Your task to perform on an android device: Search for seafood restaurants on Google Maps Image 0: 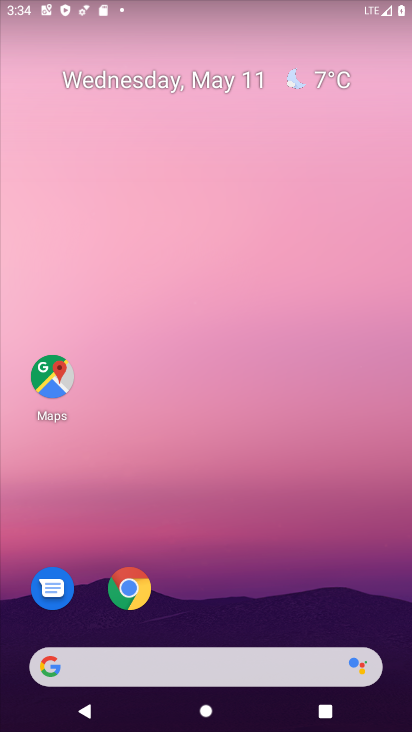
Step 0: drag from (220, 706) to (192, 86)
Your task to perform on an android device: Search for seafood restaurants on Google Maps Image 1: 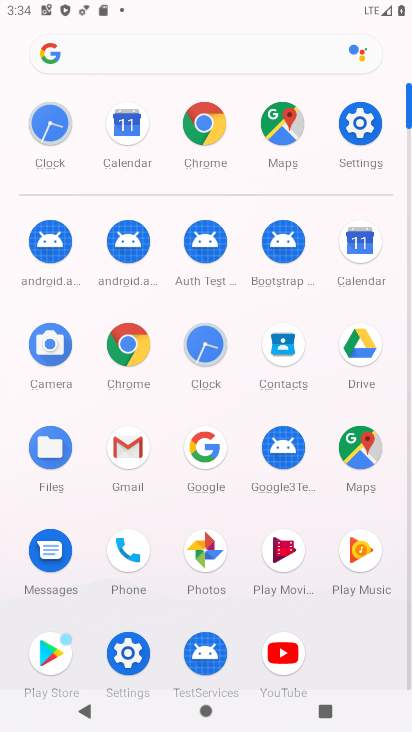
Step 1: click (363, 451)
Your task to perform on an android device: Search for seafood restaurants on Google Maps Image 2: 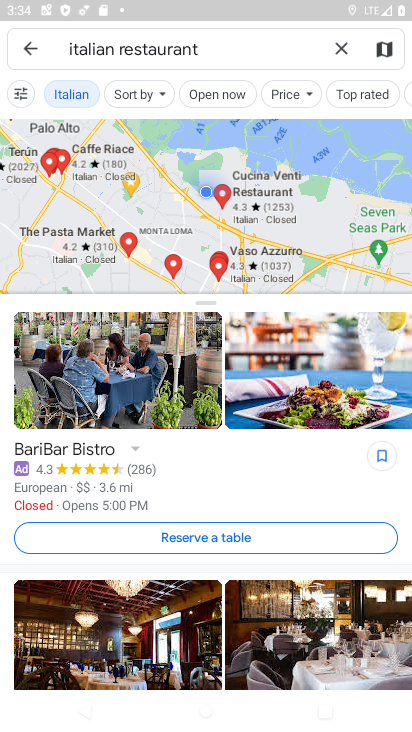
Step 2: click (342, 42)
Your task to perform on an android device: Search for seafood restaurants on Google Maps Image 3: 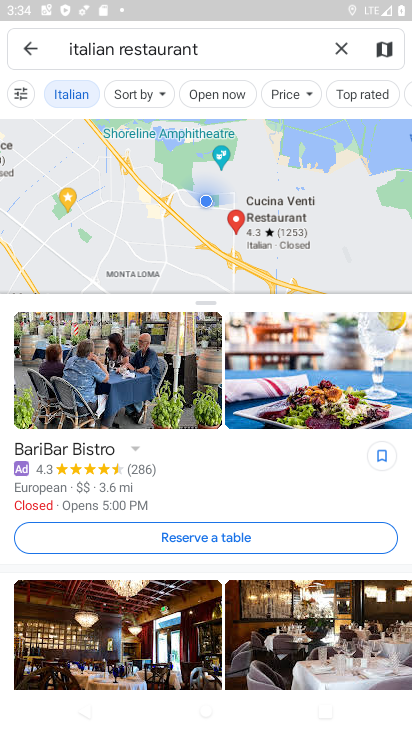
Step 3: click (187, 44)
Your task to perform on an android device: Search for seafood restaurants on Google Maps Image 4: 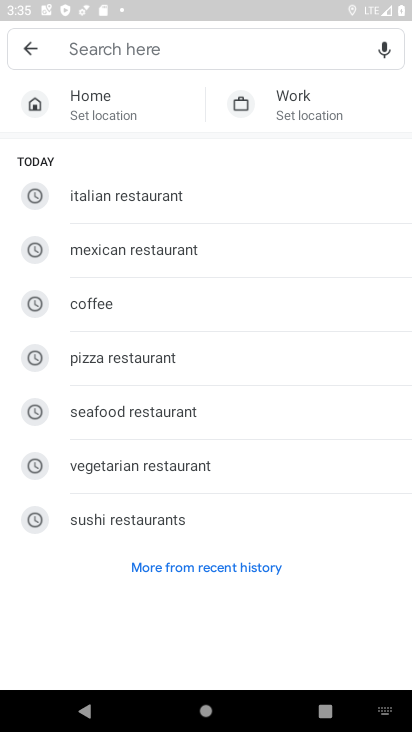
Step 4: type "seafood restaurants"
Your task to perform on an android device: Search for seafood restaurants on Google Maps Image 5: 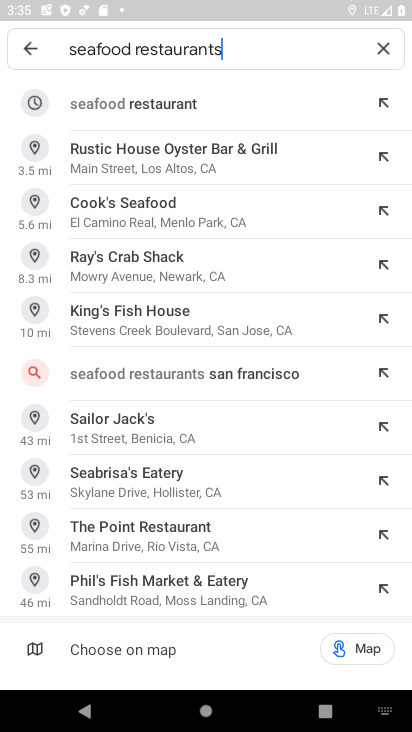
Step 5: click (122, 103)
Your task to perform on an android device: Search for seafood restaurants on Google Maps Image 6: 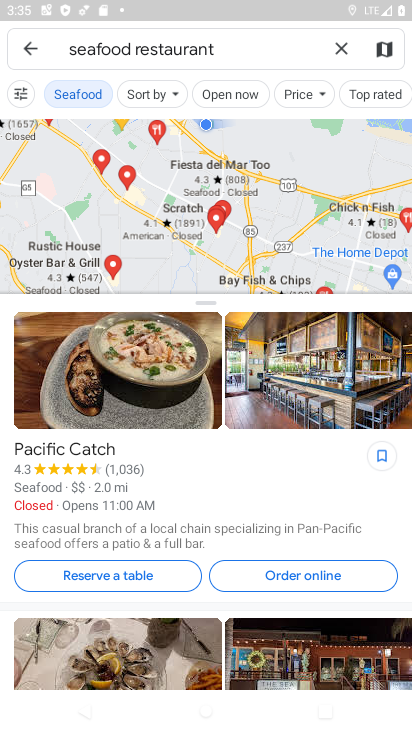
Step 6: task complete